Your task to perform on an android device: allow notifications from all sites in the chrome app Image 0: 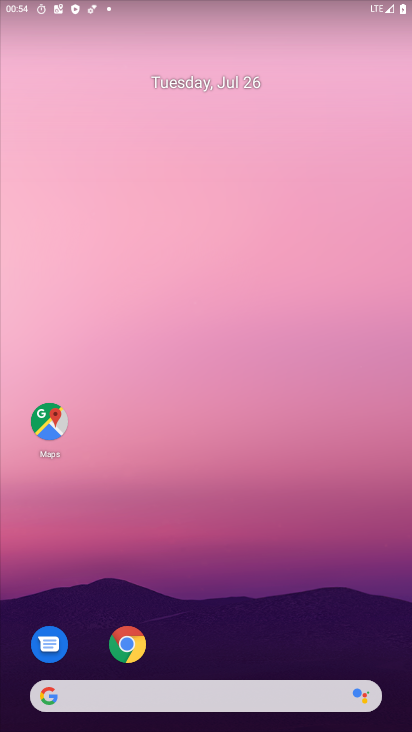
Step 0: click (130, 645)
Your task to perform on an android device: allow notifications from all sites in the chrome app Image 1: 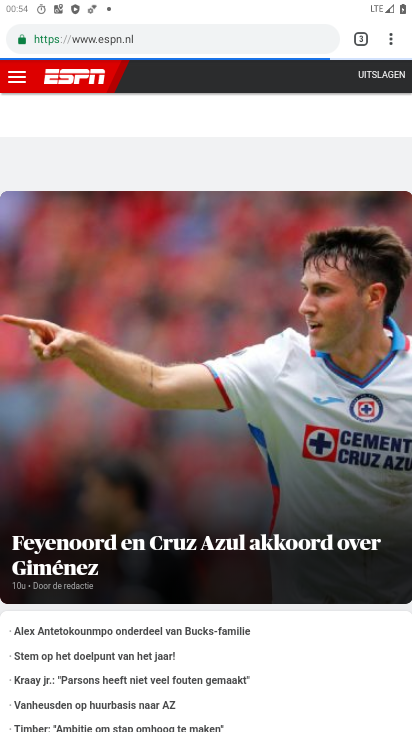
Step 1: drag from (392, 41) to (253, 448)
Your task to perform on an android device: allow notifications from all sites in the chrome app Image 2: 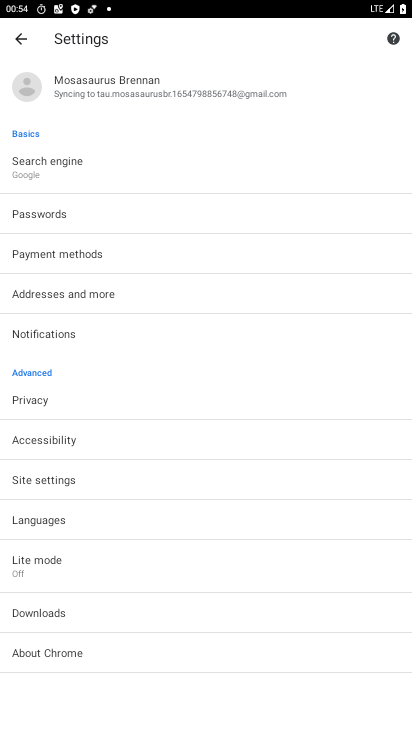
Step 2: click (29, 485)
Your task to perform on an android device: allow notifications from all sites in the chrome app Image 3: 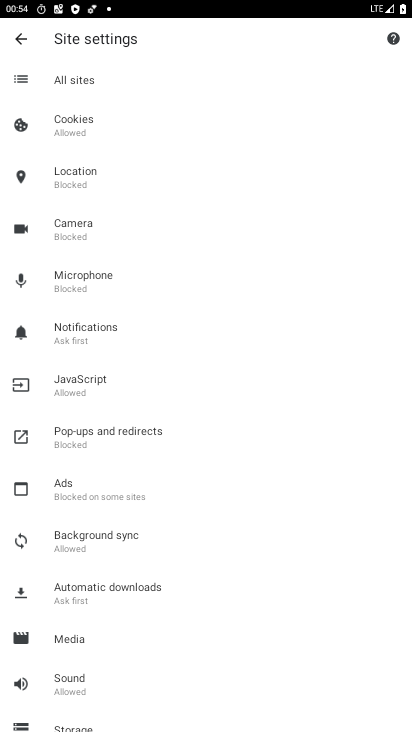
Step 3: click (75, 326)
Your task to perform on an android device: allow notifications from all sites in the chrome app Image 4: 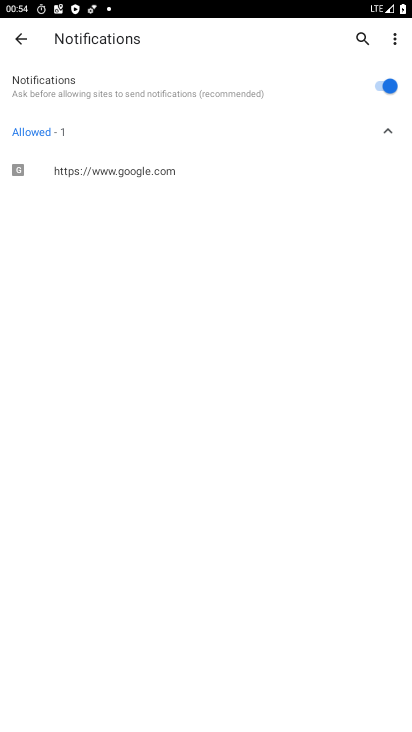
Step 4: task complete